Your task to perform on an android device: set default search engine in the chrome app Image 0: 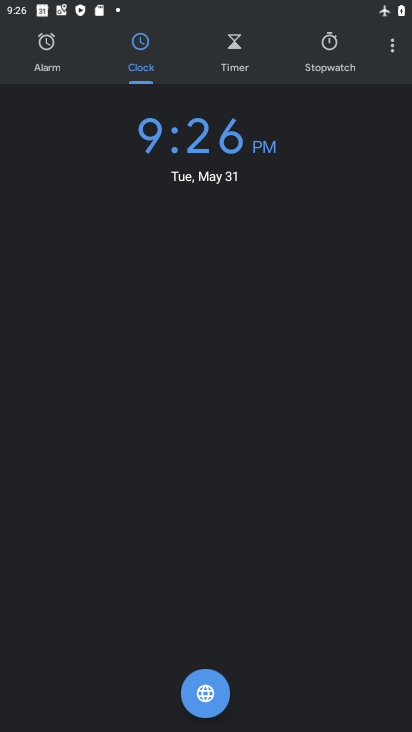
Step 0: press home button
Your task to perform on an android device: set default search engine in the chrome app Image 1: 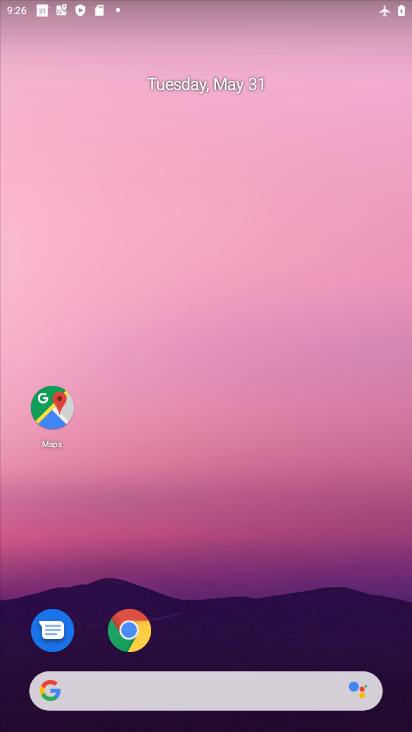
Step 1: drag from (299, 543) to (324, 191)
Your task to perform on an android device: set default search engine in the chrome app Image 2: 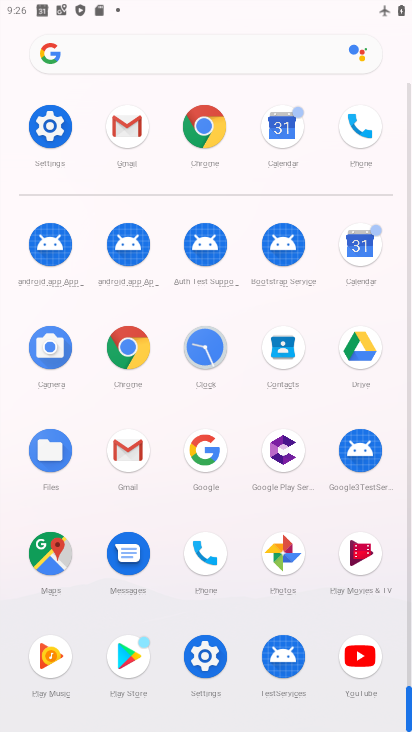
Step 2: click (130, 349)
Your task to perform on an android device: set default search engine in the chrome app Image 3: 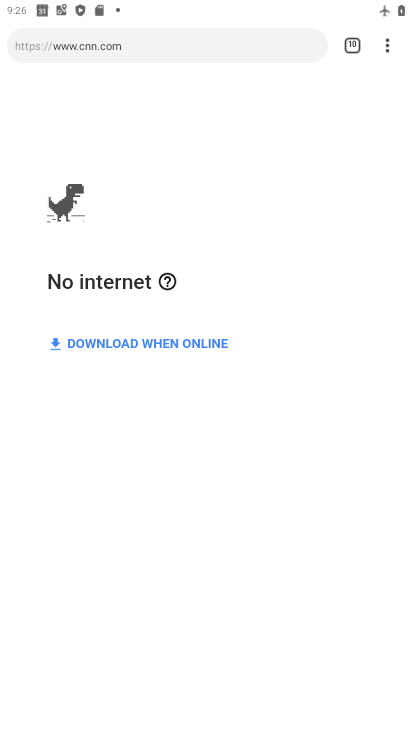
Step 3: click (386, 40)
Your task to perform on an android device: set default search engine in the chrome app Image 4: 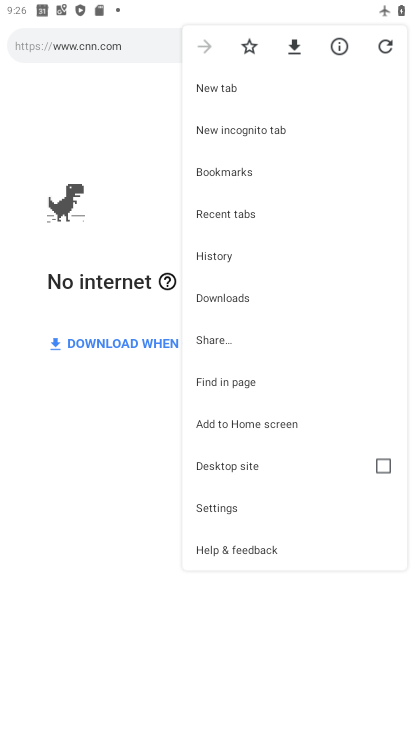
Step 4: click (247, 502)
Your task to perform on an android device: set default search engine in the chrome app Image 5: 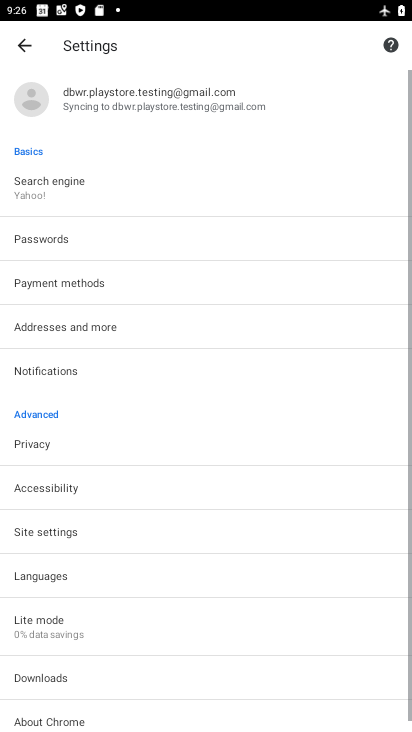
Step 5: click (110, 187)
Your task to perform on an android device: set default search engine in the chrome app Image 6: 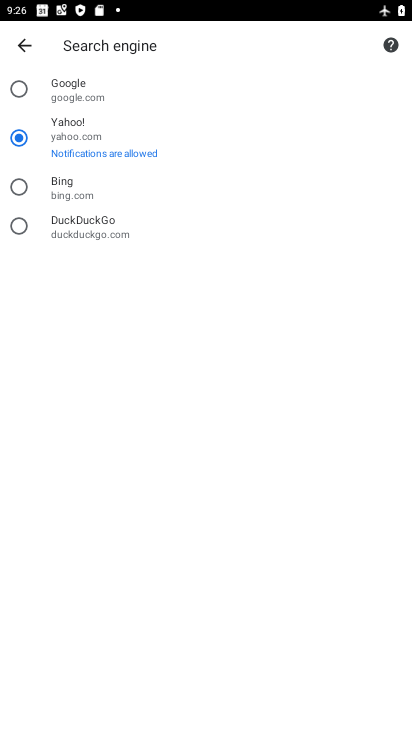
Step 6: click (76, 92)
Your task to perform on an android device: set default search engine in the chrome app Image 7: 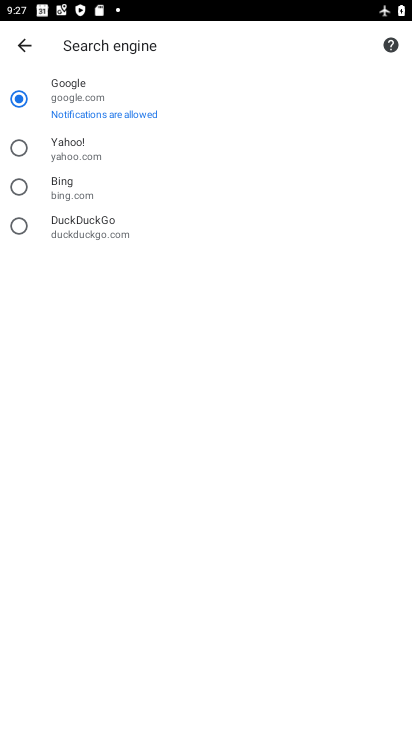
Step 7: task complete